Your task to perform on an android device: Open Youtube and go to "Your channel" Image 0: 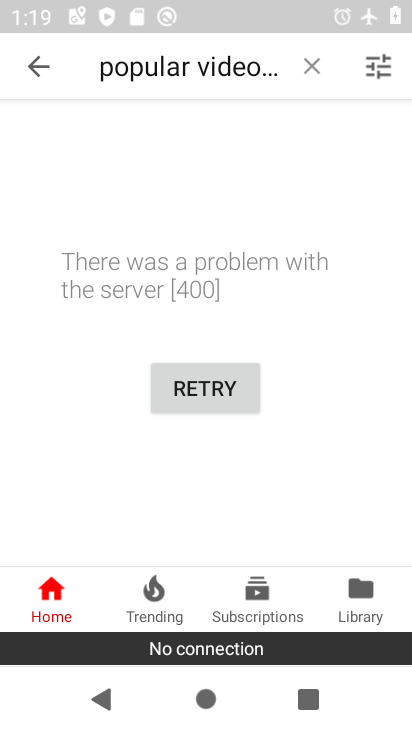
Step 0: press home button
Your task to perform on an android device: Open Youtube and go to "Your channel" Image 1: 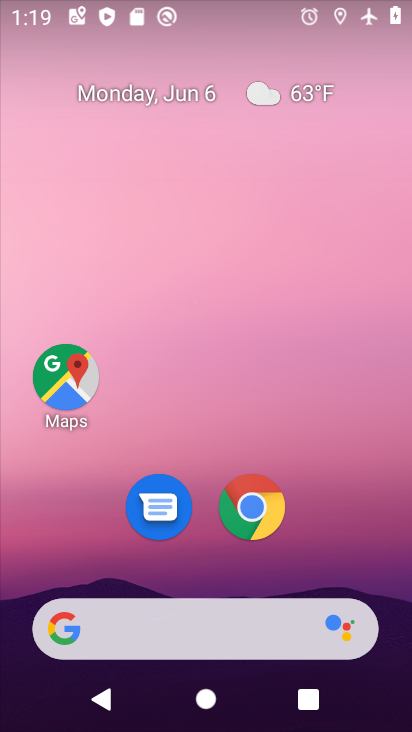
Step 1: drag from (312, 555) to (261, 43)
Your task to perform on an android device: Open Youtube and go to "Your channel" Image 2: 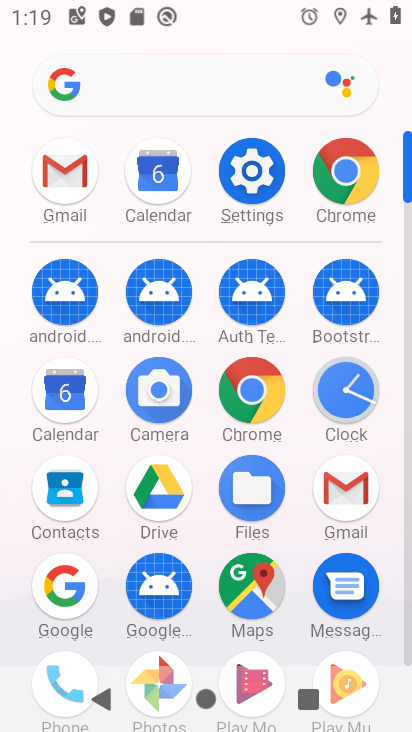
Step 2: drag from (298, 631) to (303, 259)
Your task to perform on an android device: Open Youtube and go to "Your channel" Image 3: 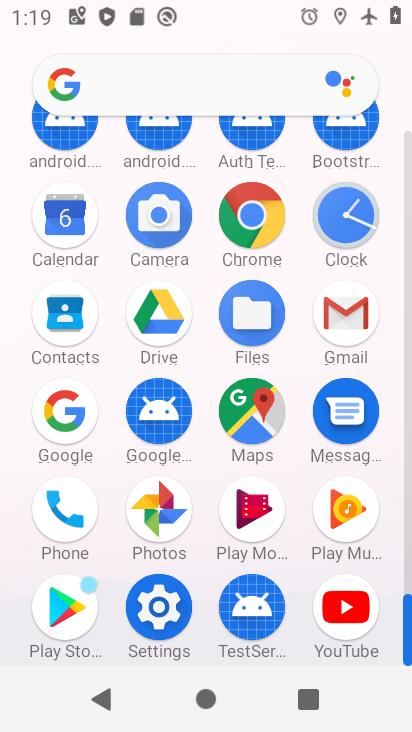
Step 3: click (345, 598)
Your task to perform on an android device: Open Youtube and go to "Your channel" Image 4: 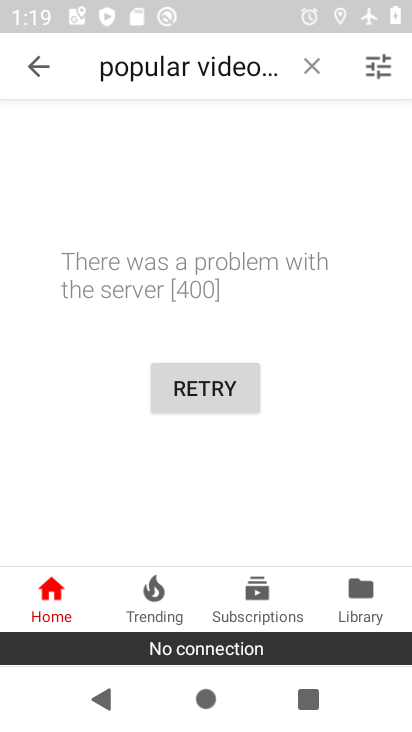
Step 4: click (234, 385)
Your task to perform on an android device: Open Youtube and go to "Your channel" Image 5: 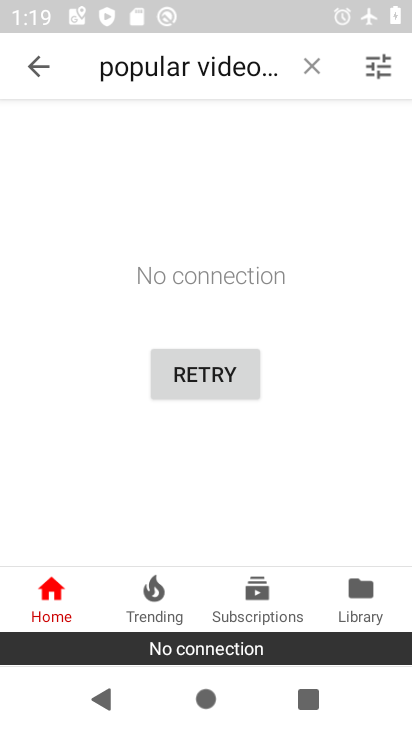
Step 5: click (234, 387)
Your task to perform on an android device: Open Youtube and go to "Your channel" Image 6: 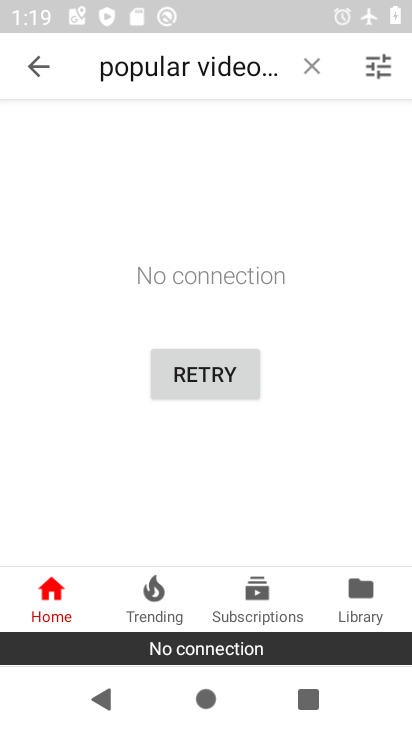
Step 6: task complete